Your task to perform on an android device: change the upload size in google photos Image 0: 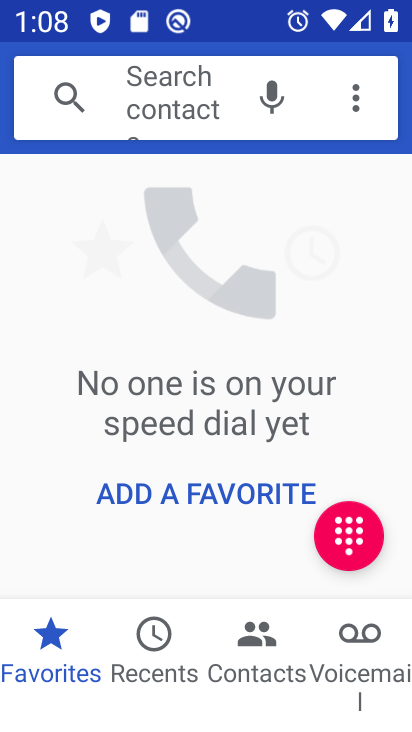
Step 0: press home button
Your task to perform on an android device: change the upload size in google photos Image 1: 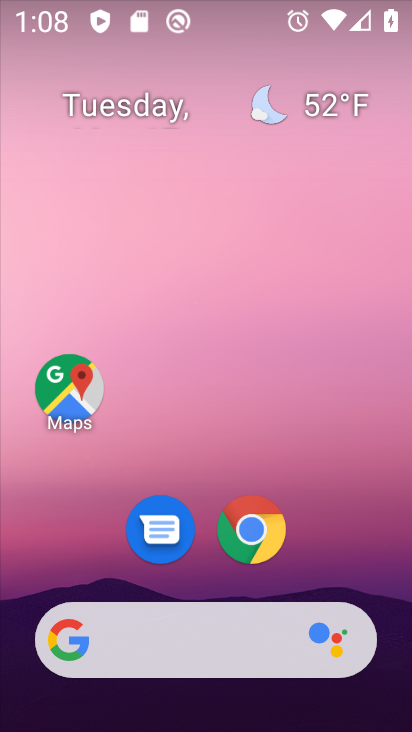
Step 1: drag from (186, 636) to (68, 111)
Your task to perform on an android device: change the upload size in google photos Image 2: 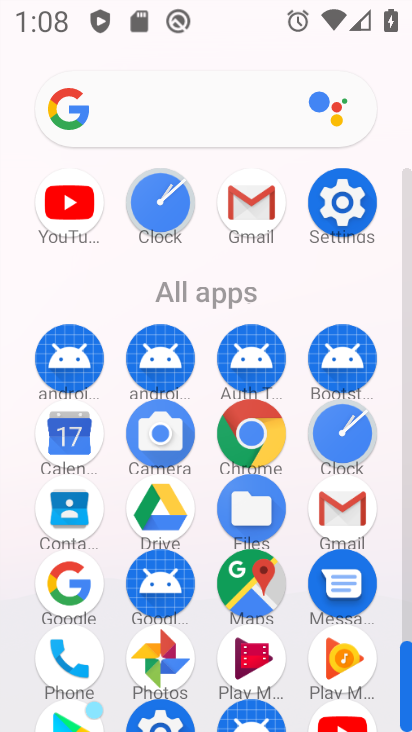
Step 2: click (159, 652)
Your task to perform on an android device: change the upload size in google photos Image 3: 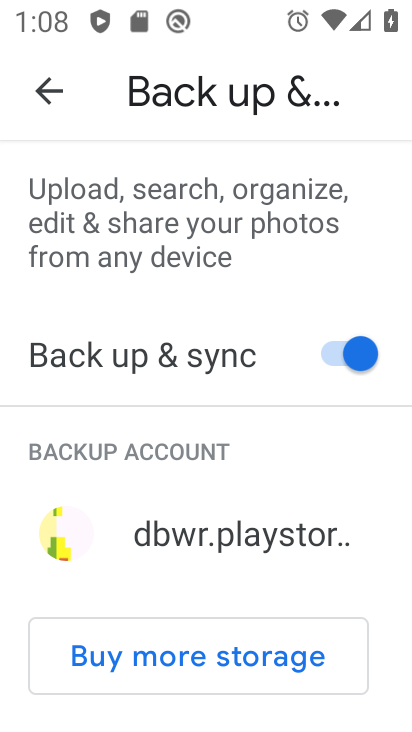
Step 3: drag from (241, 630) to (132, 19)
Your task to perform on an android device: change the upload size in google photos Image 4: 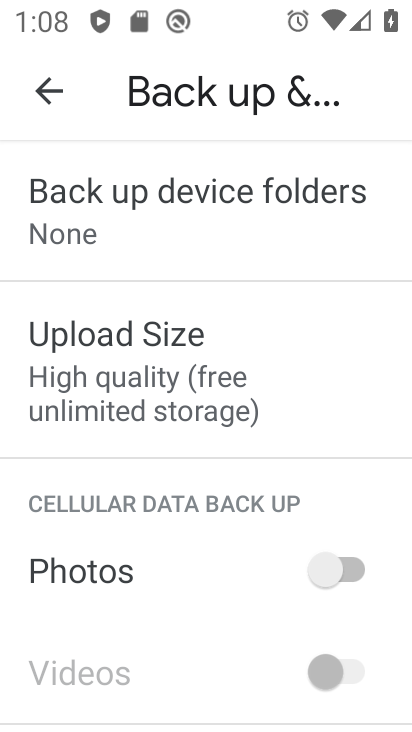
Step 4: click (260, 391)
Your task to perform on an android device: change the upload size in google photos Image 5: 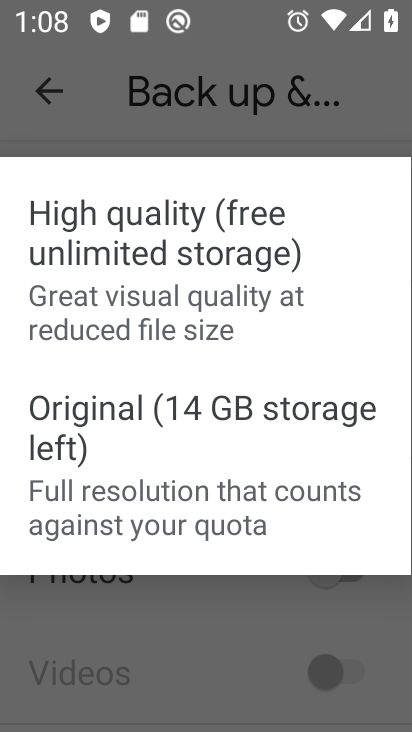
Step 5: click (211, 494)
Your task to perform on an android device: change the upload size in google photos Image 6: 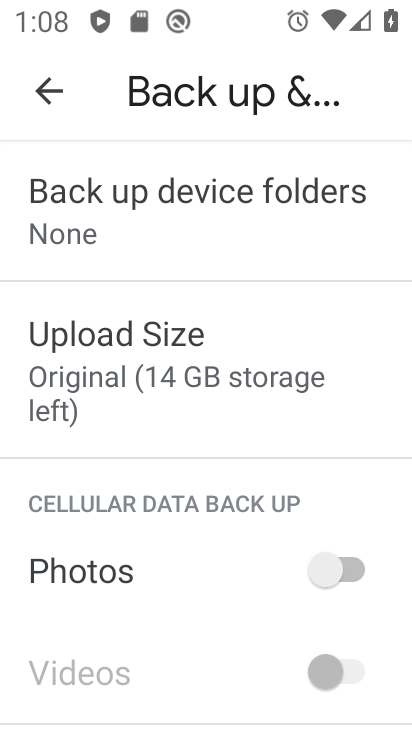
Step 6: task complete